Your task to perform on an android device: turn on the 24-hour format for clock Image 0: 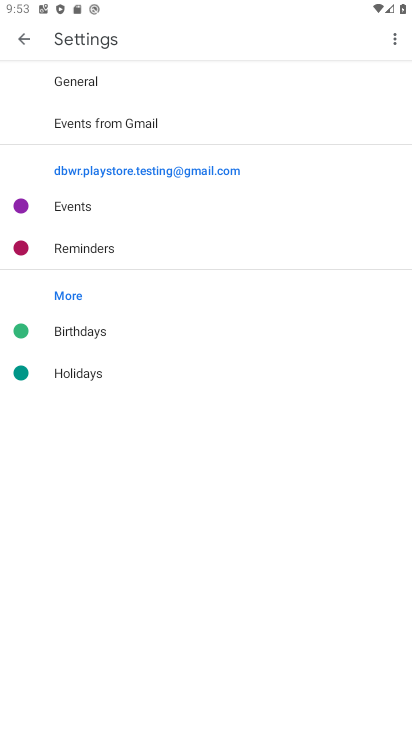
Step 0: press home button
Your task to perform on an android device: turn on the 24-hour format for clock Image 1: 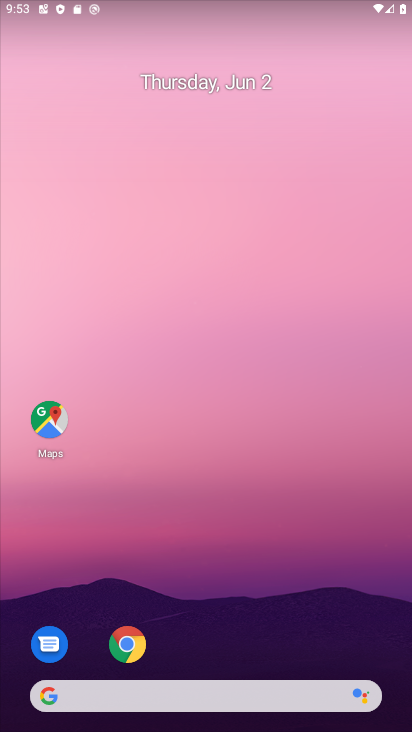
Step 1: drag from (199, 658) to (187, 253)
Your task to perform on an android device: turn on the 24-hour format for clock Image 2: 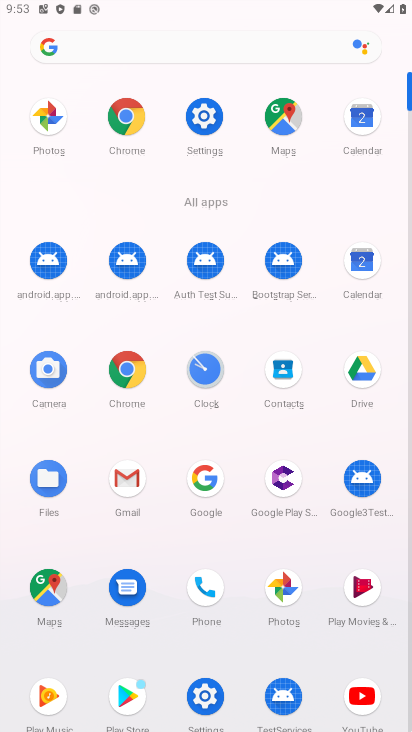
Step 2: click (207, 383)
Your task to perform on an android device: turn on the 24-hour format for clock Image 3: 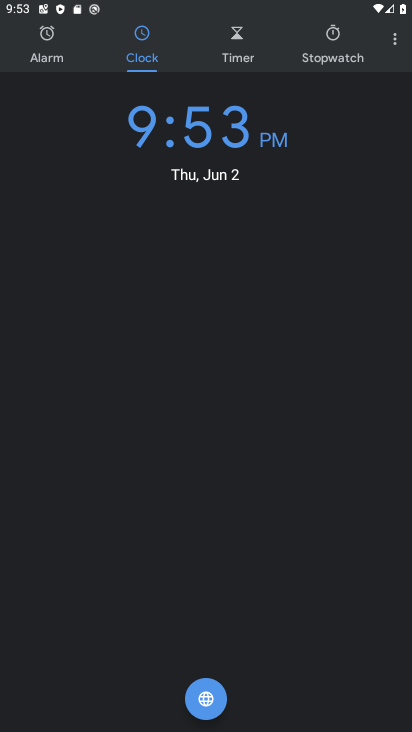
Step 3: click (399, 42)
Your task to perform on an android device: turn on the 24-hour format for clock Image 4: 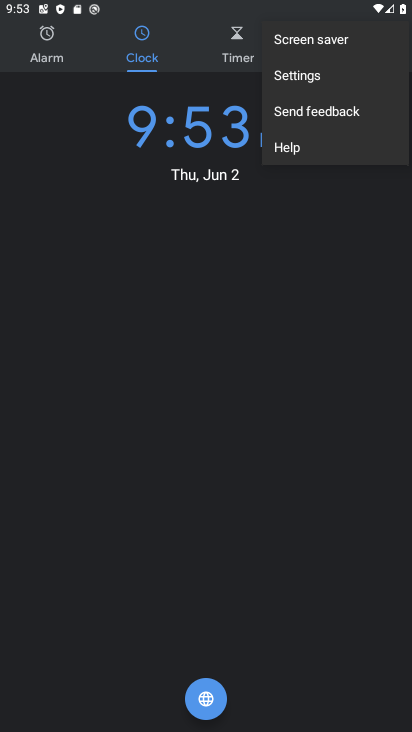
Step 4: click (294, 78)
Your task to perform on an android device: turn on the 24-hour format for clock Image 5: 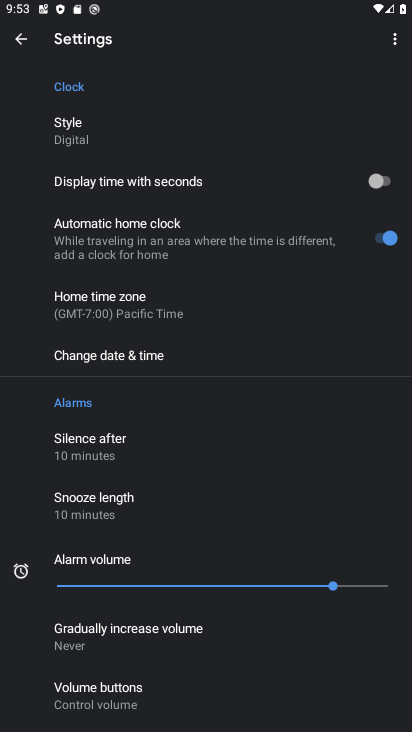
Step 5: click (153, 354)
Your task to perform on an android device: turn on the 24-hour format for clock Image 6: 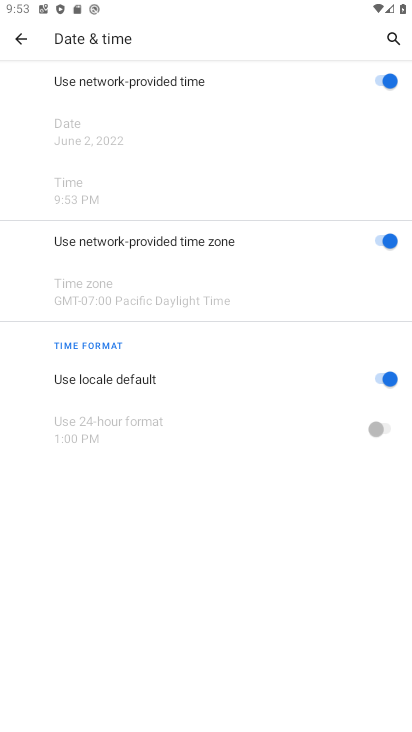
Step 6: click (377, 381)
Your task to perform on an android device: turn on the 24-hour format for clock Image 7: 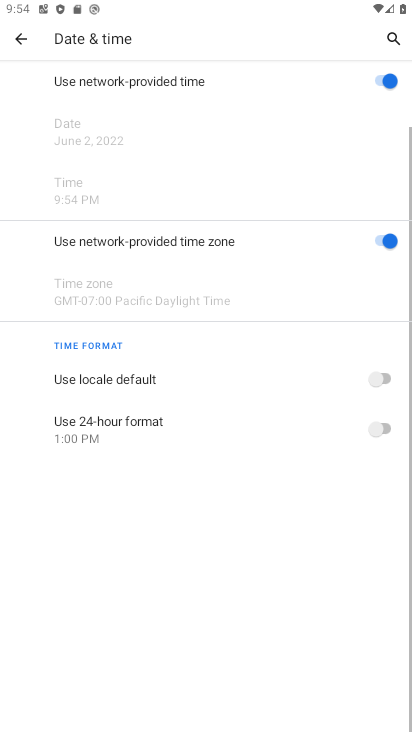
Step 7: click (386, 433)
Your task to perform on an android device: turn on the 24-hour format for clock Image 8: 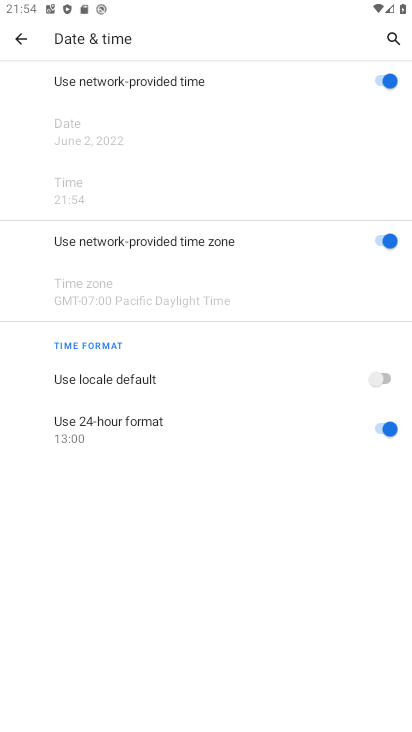
Step 8: task complete